Your task to perform on an android device: open a new tab in the chrome app Image 0: 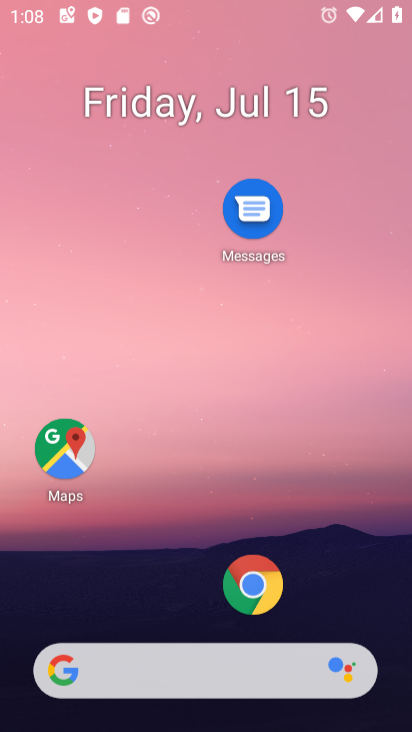
Step 0: press home button
Your task to perform on an android device: open a new tab in the chrome app Image 1: 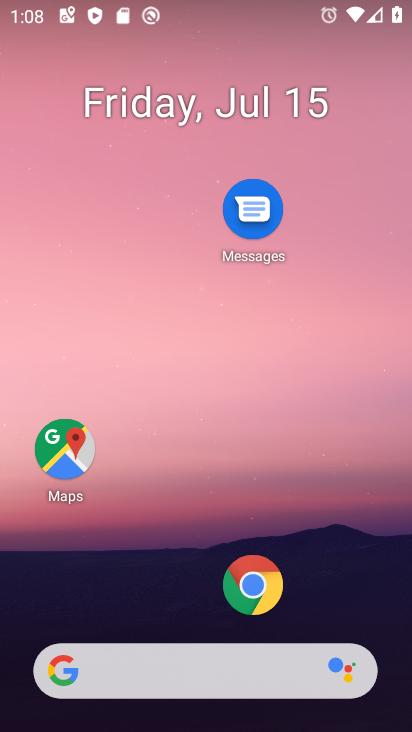
Step 1: click (255, 591)
Your task to perform on an android device: open a new tab in the chrome app Image 2: 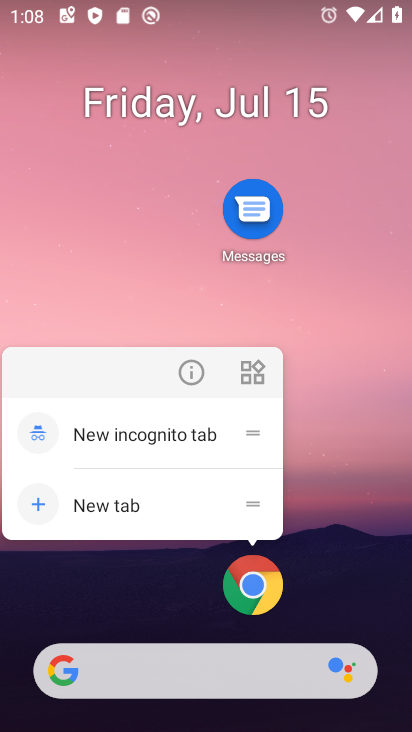
Step 2: click (263, 582)
Your task to perform on an android device: open a new tab in the chrome app Image 3: 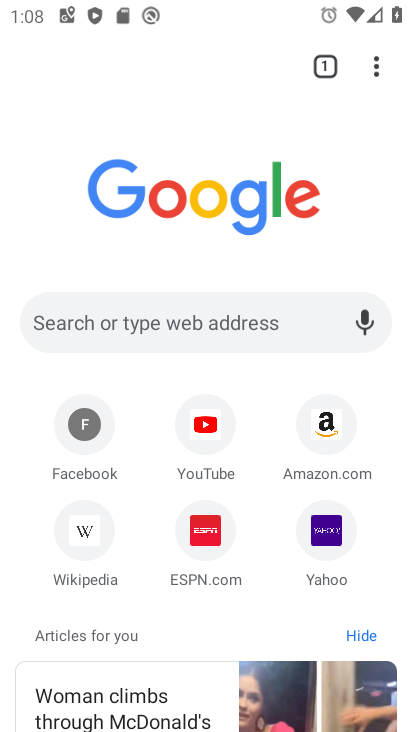
Step 3: task complete